Your task to perform on an android device: Show me popular games on the Play Store Image 0: 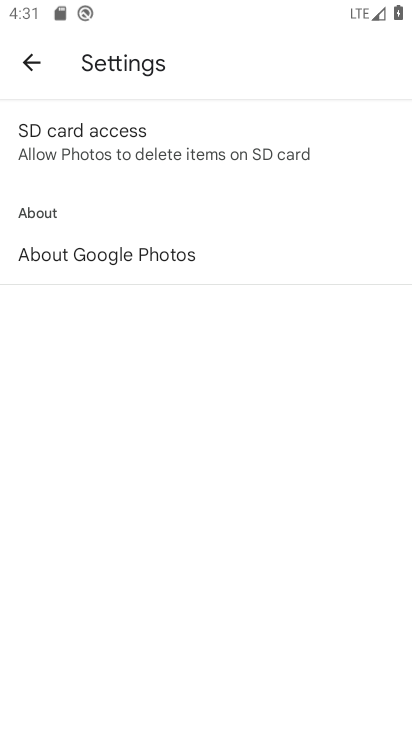
Step 0: press home button
Your task to perform on an android device: Show me popular games on the Play Store Image 1: 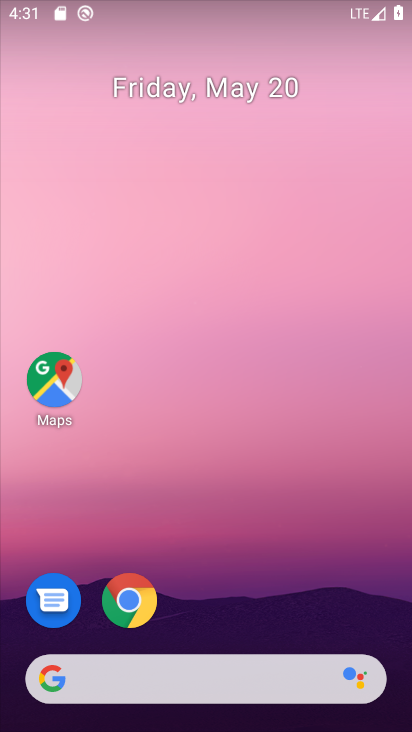
Step 1: drag from (315, 573) to (153, 0)
Your task to perform on an android device: Show me popular games on the Play Store Image 2: 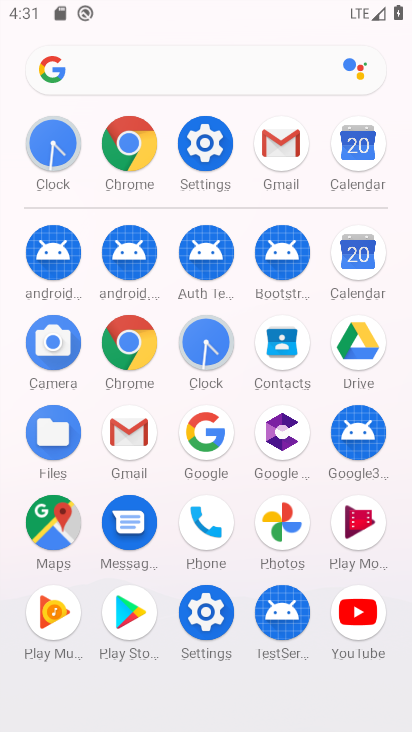
Step 2: click (136, 623)
Your task to perform on an android device: Show me popular games on the Play Store Image 3: 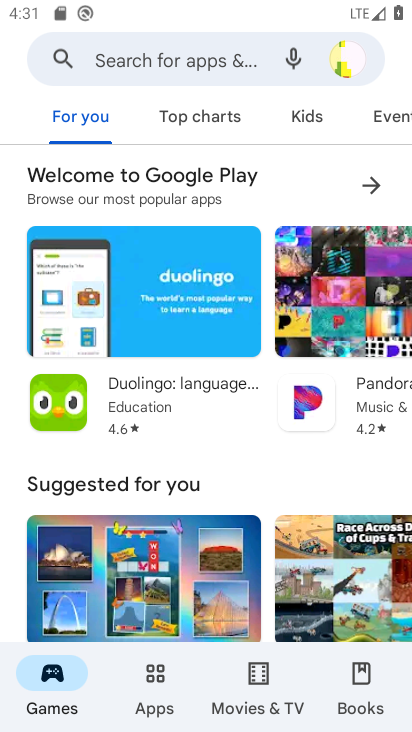
Step 3: click (204, 116)
Your task to perform on an android device: Show me popular games on the Play Store Image 4: 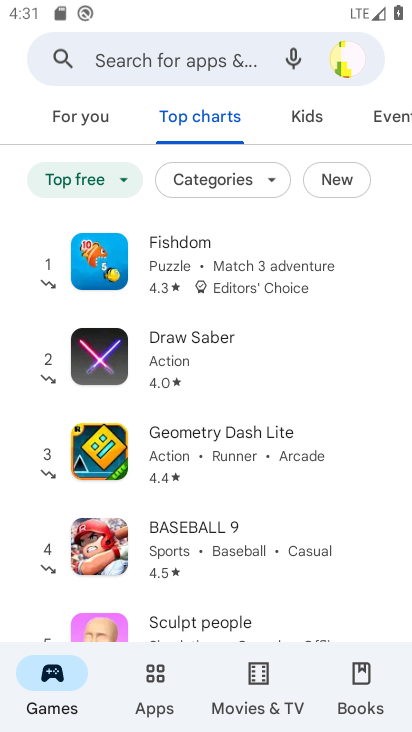
Step 4: task complete